Your task to perform on an android device: check data usage Image 0: 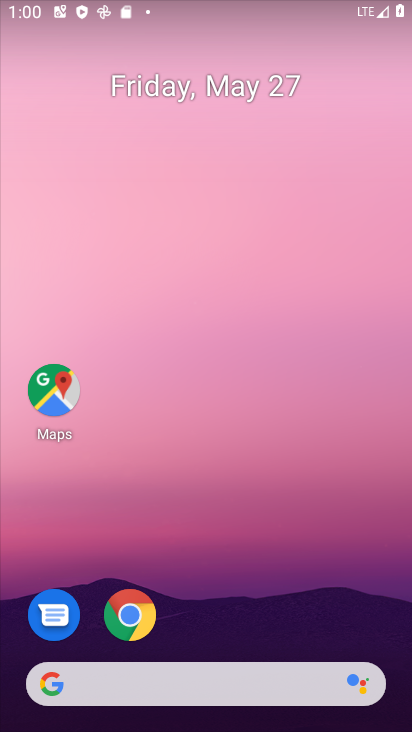
Step 0: drag from (296, 650) to (382, 7)
Your task to perform on an android device: check data usage Image 1: 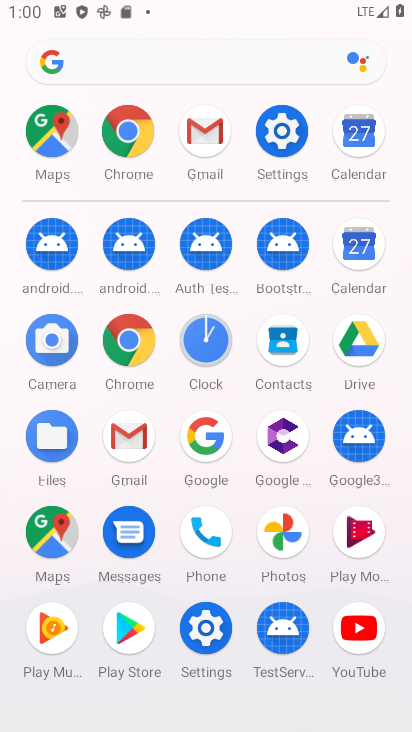
Step 1: click (280, 149)
Your task to perform on an android device: check data usage Image 2: 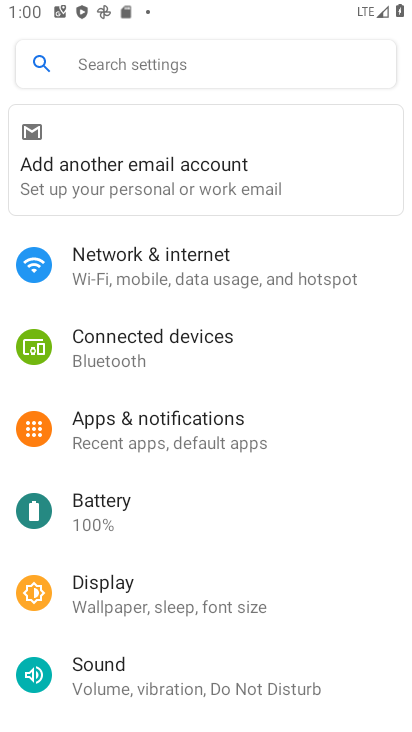
Step 2: click (230, 282)
Your task to perform on an android device: check data usage Image 3: 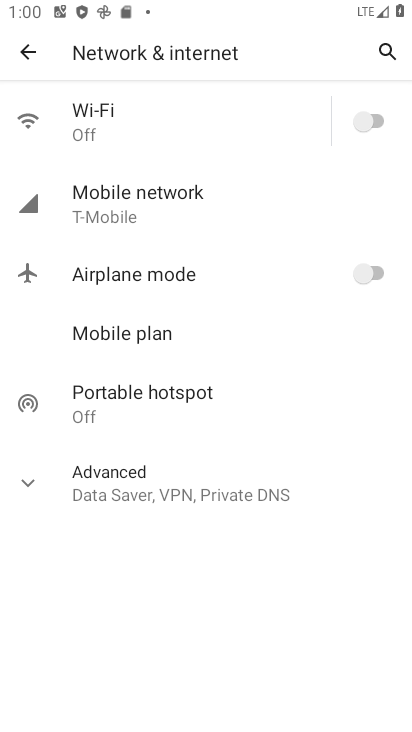
Step 3: click (151, 200)
Your task to perform on an android device: check data usage Image 4: 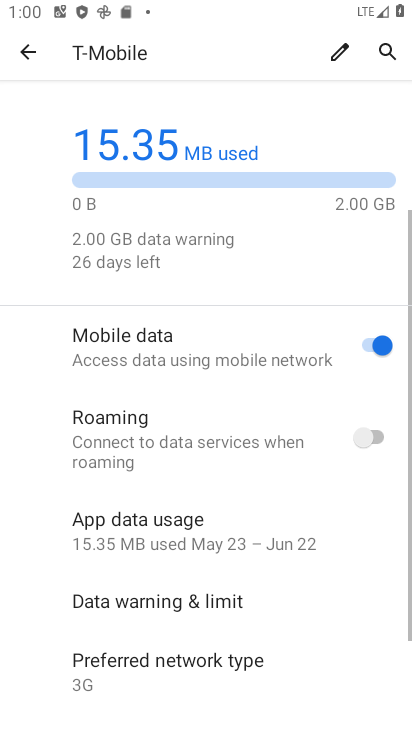
Step 4: task complete